Your task to perform on an android device: all mails in gmail Image 0: 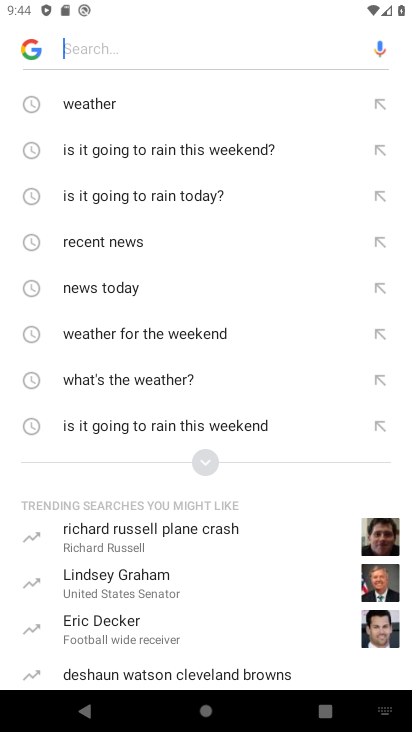
Step 0: press home button
Your task to perform on an android device: all mails in gmail Image 1: 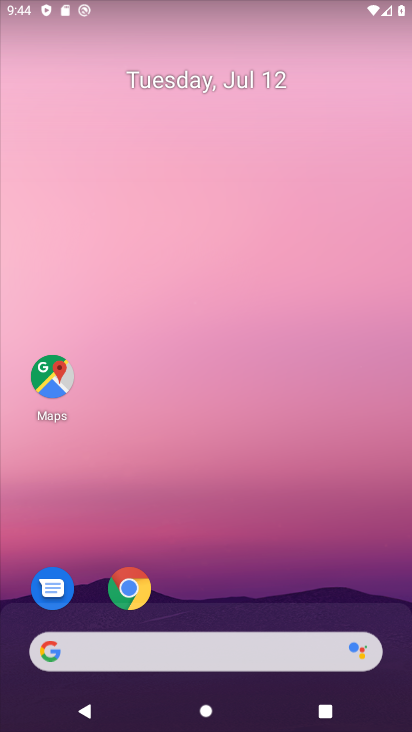
Step 1: drag from (265, 615) to (241, 35)
Your task to perform on an android device: all mails in gmail Image 2: 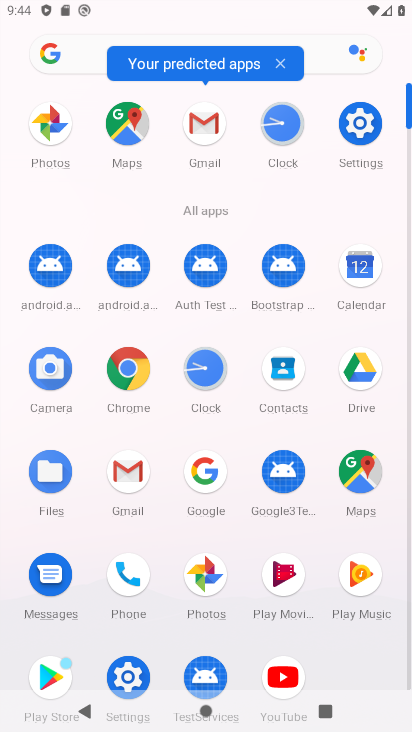
Step 2: click (209, 118)
Your task to perform on an android device: all mails in gmail Image 3: 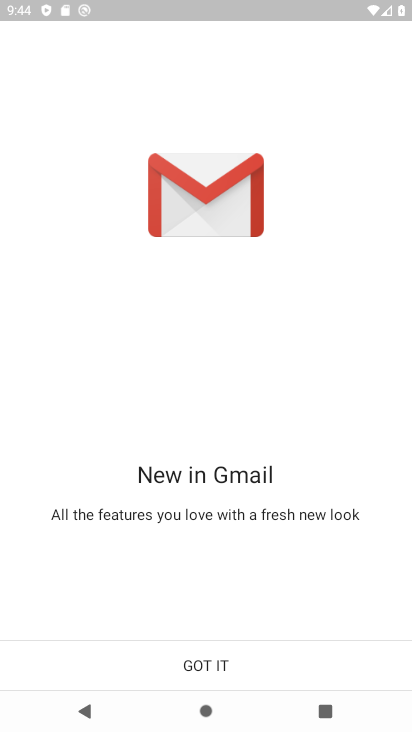
Step 3: click (217, 663)
Your task to perform on an android device: all mails in gmail Image 4: 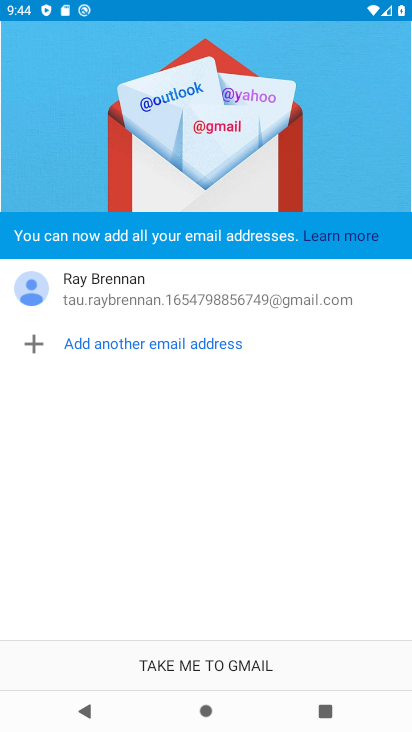
Step 4: click (217, 663)
Your task to perform on an android device: all mails in gmail Image 5: 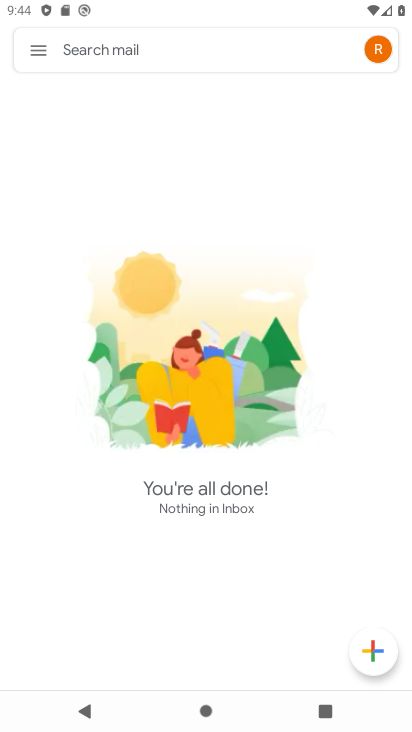
Step 5: click (33, 57)
Your task to perform on an android device: all mails in gmail Image 6: 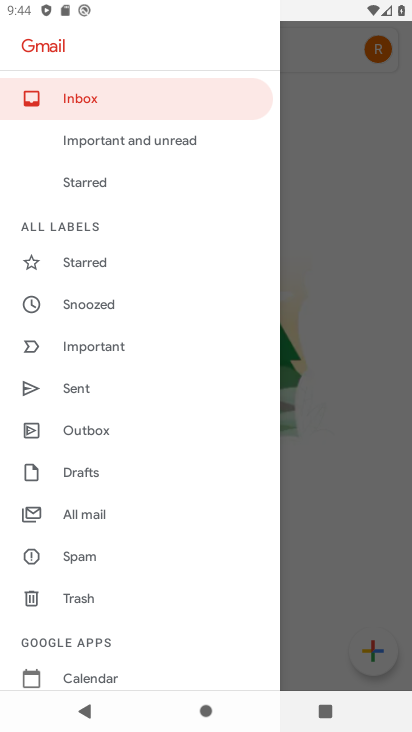
Step 6: click (119, 513)
Your task to perform on an android device: all mails in gmail Image 7: 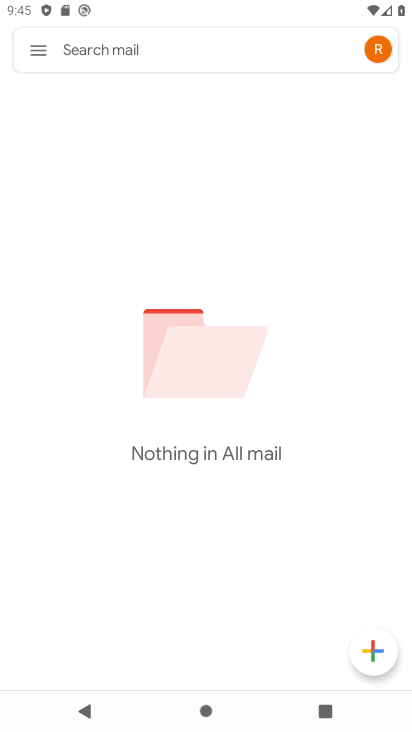
Step 7: task complete